Your task to perform on an android device: Go to settings Image 0: 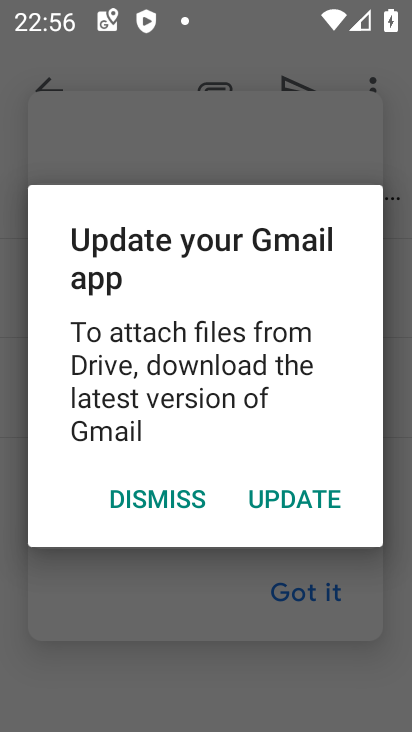
Step 0: press home button
Your task to perform on an android device: Go to settings Image 1: 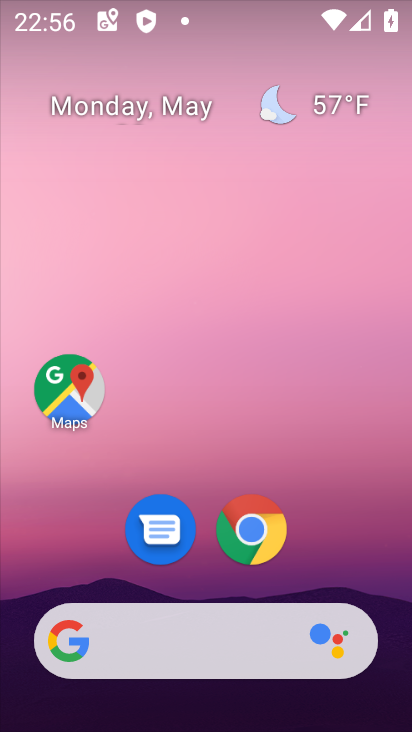
Step 1: click (349, 590)
Your task to perform on an android device: Go to settings Image 2: 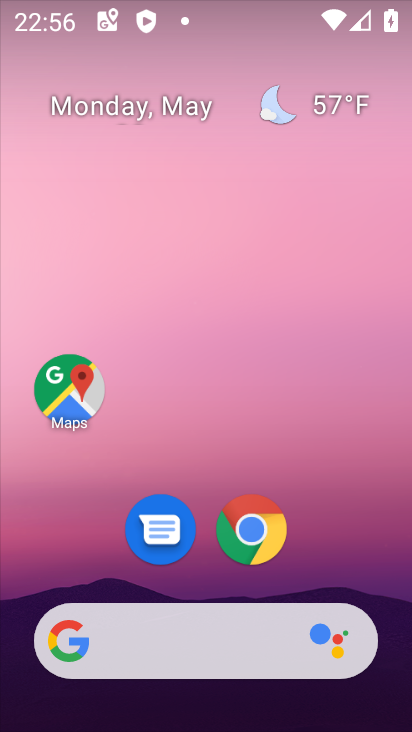
Step 2: drag from (191, 728) to (173, 95)
Your task to perform on an android device: Go to settings Image 3: 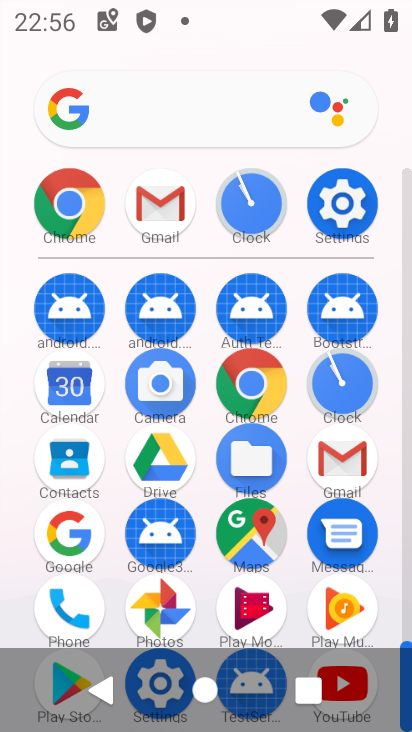
Step 3: click (348, 199)
Your task to perform on an android device: Go to settings Image 4: 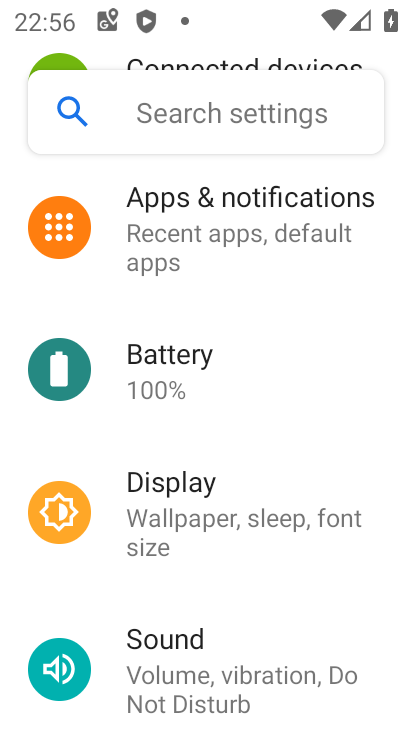
Step 4: task complete